Your task to perform on an android device: delete a single message in the gmail app Image 0: 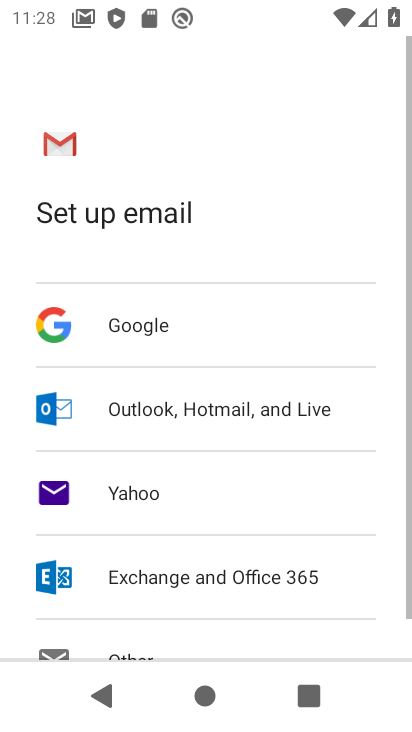
Step 0: press home button
Your task to perform on an android device: delete a single message in the gmail app Image 1: 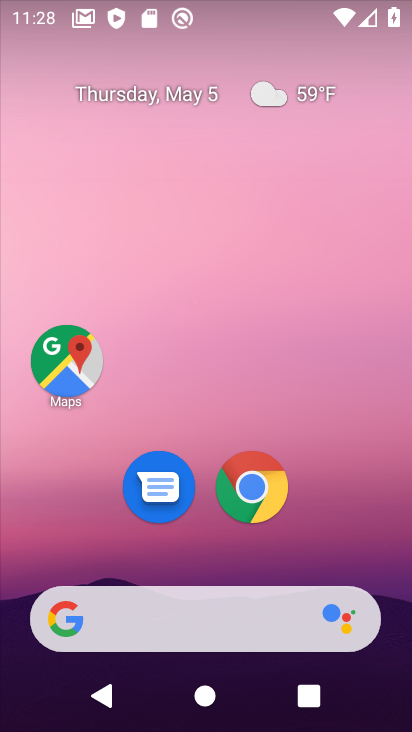
Step 1: drag from (305, 526) to (111, 136)
Your task to perform on an android device: delete a single message in the gmail app Image 2: 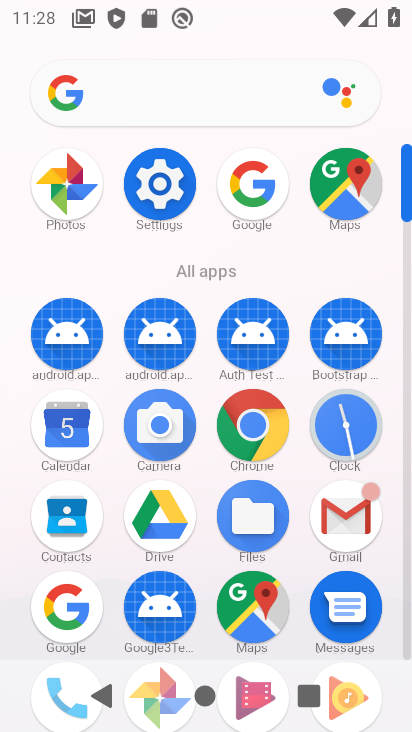
Step 2: click (341, 519)
Your task to perform on an android device: delete a single message in the gmail app Image 3: 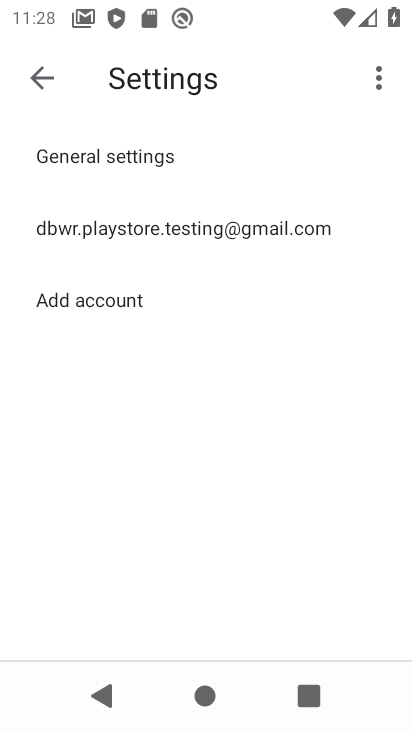
Step 3: press back button
Your task to perform on an android device: delete a single message in the gmail app Image 4: 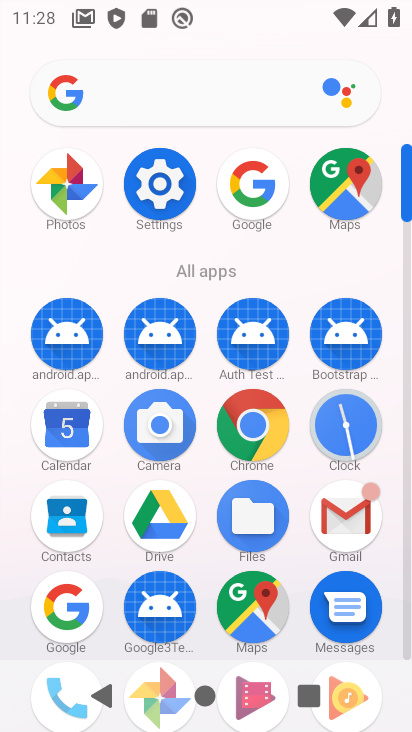
Step 4: click (351, 517)
Your task to perform on an android device: delete a single message in the gmail app Image 5: 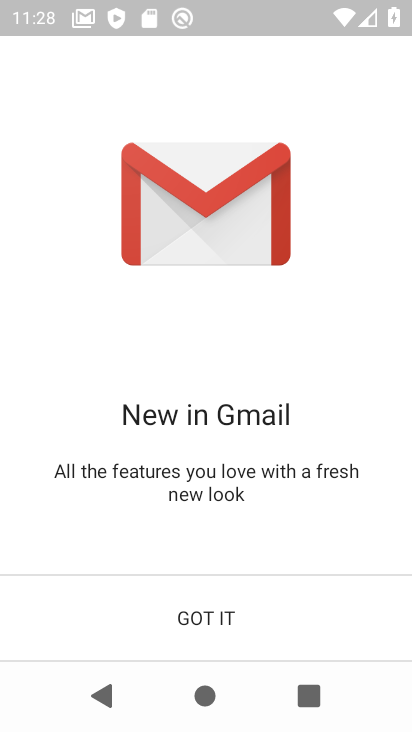
Step 5: click (195, 613)
Your task to perform on an android device: delete a single message in the gmail app Image 6: 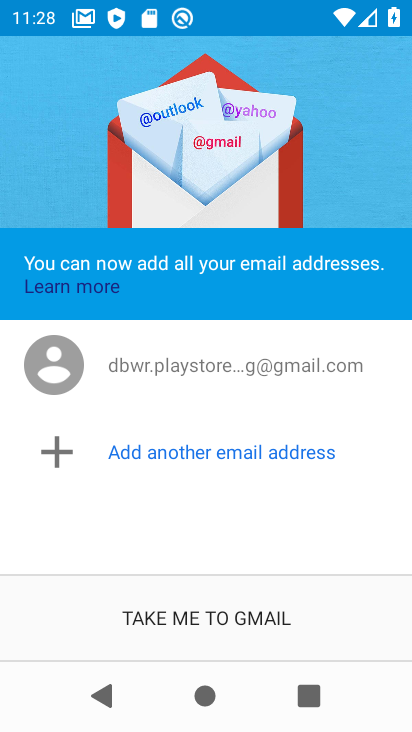
Step 6: click (195, 613)
Your task to perform on an android device: delete a single message in the gmail app Image 7: 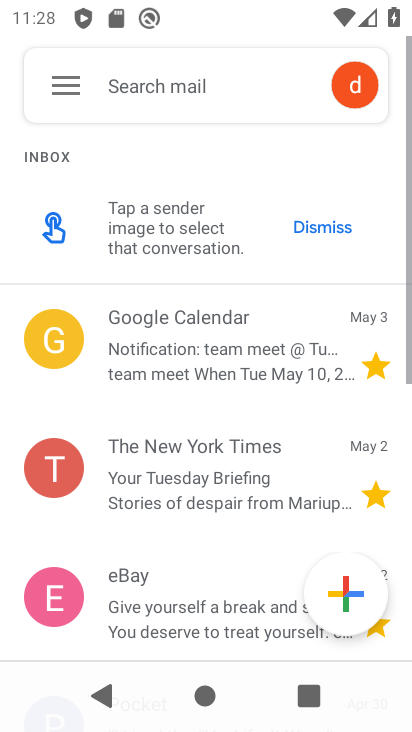
Step 7: click (195, 613)
Your task to perform on an android device: delete a single message in the gmail app Image 8: 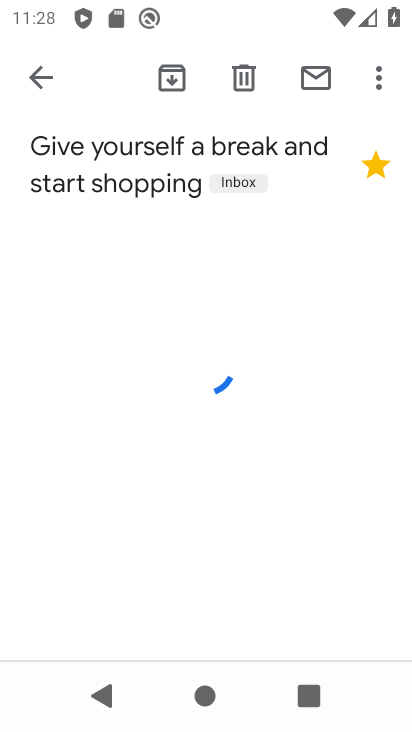
Step 8: click (242, 62)
Your task to perform on an android device: delete a single message in the gmail app Image 9: 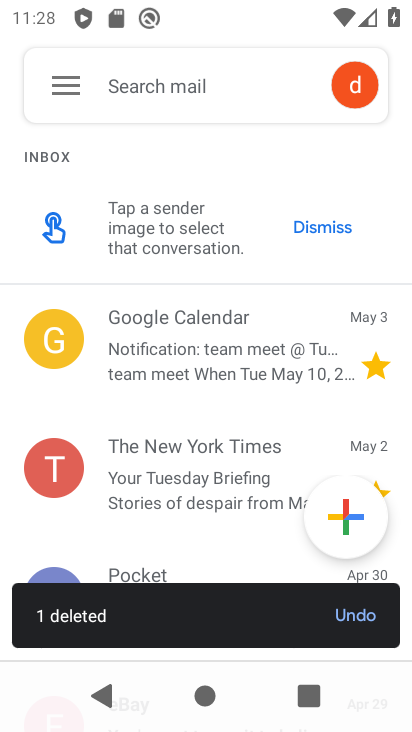
Step 9: task complete